Your task to perform on an android device: toggle javascript in the chrome app Image 0: 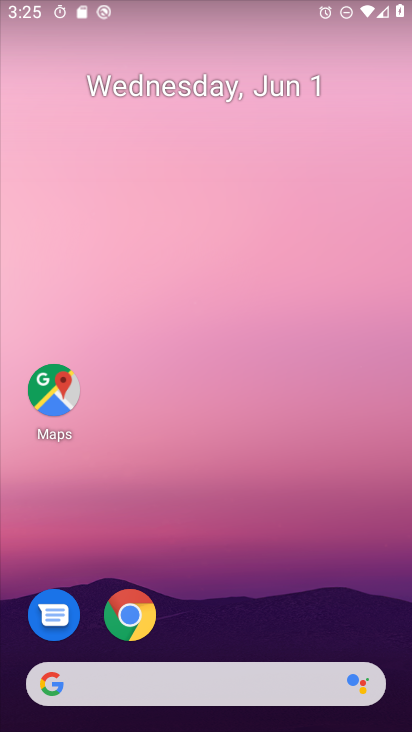
Step 0: drag from (276, 627) to (229, 51)
Your task to perform on an android device: toggle javascript in the chrome app Image 1: 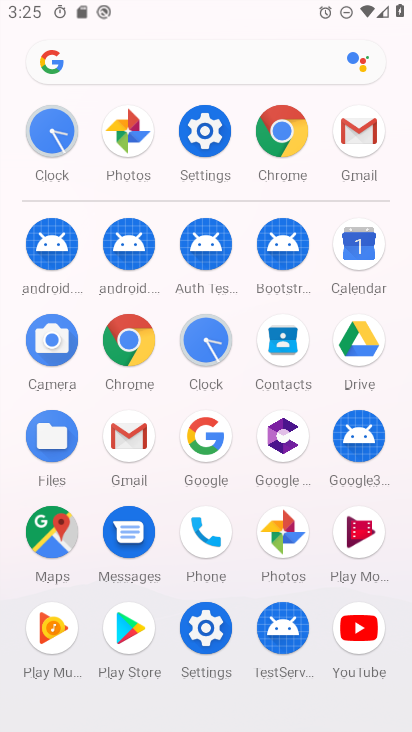
Step 1: click (291, 139)
Your task to perform on an android device: toggle javascript in the chrome app Image 2: 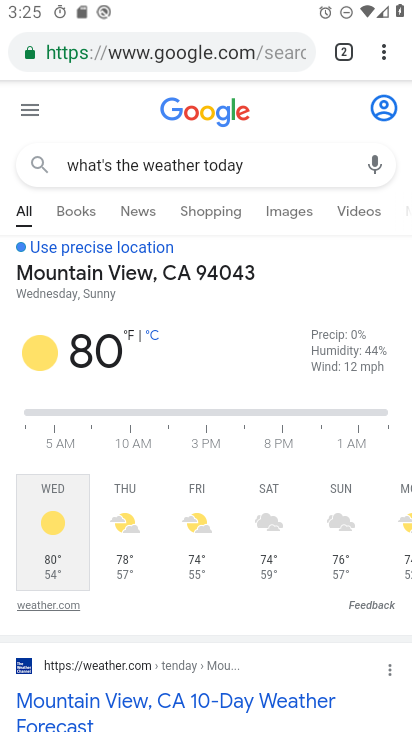
Step 2: click (388, 55)
Your task to perform on an android device: toggle javascript in the chrome app Image 3: 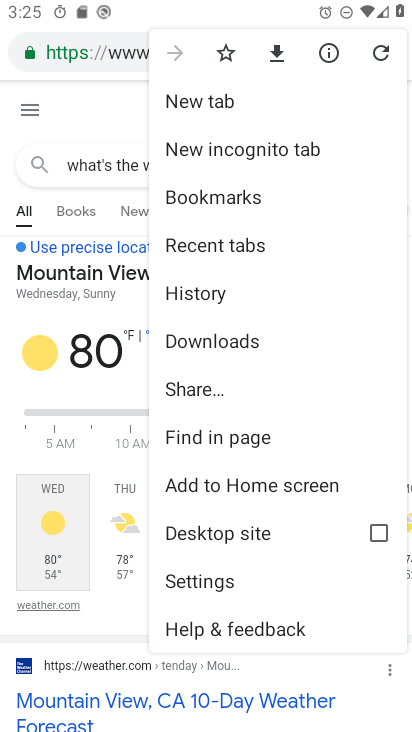
Step 3: click (220, 589)
Your task to perform on an android device: toggle javascript in the chrome app Image 4: 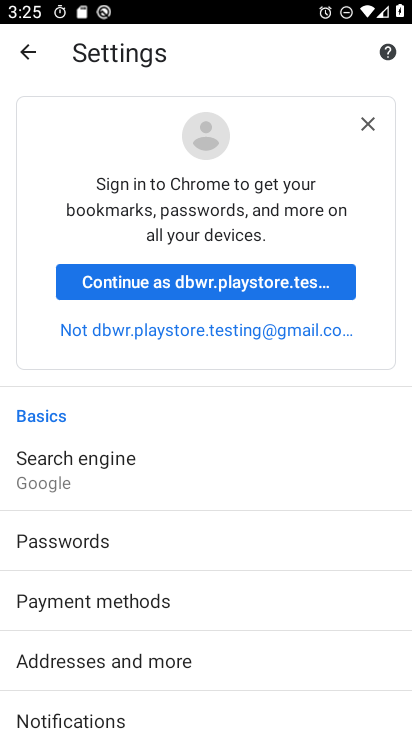
Step 4: drag from (216, 599) to (276, 100)
Your task to perform on an android device: toggle javascript in the chrome app Image 5: 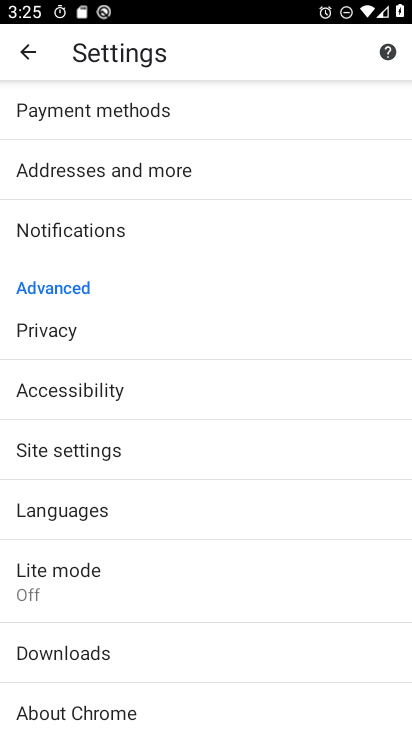
Step 5: click (195, 463)
Your task to perform on an android device: toggle javascript in the chrome app Image 6: 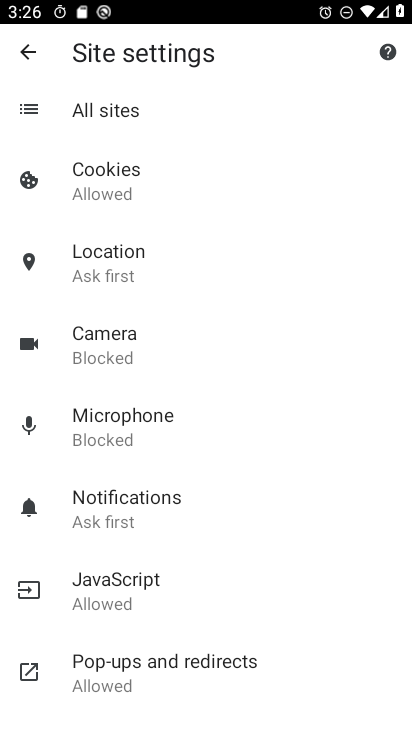
Step 6: click (144, 598)
Your task to perform on an android device: toggle javascript in the chrome app Image 7: 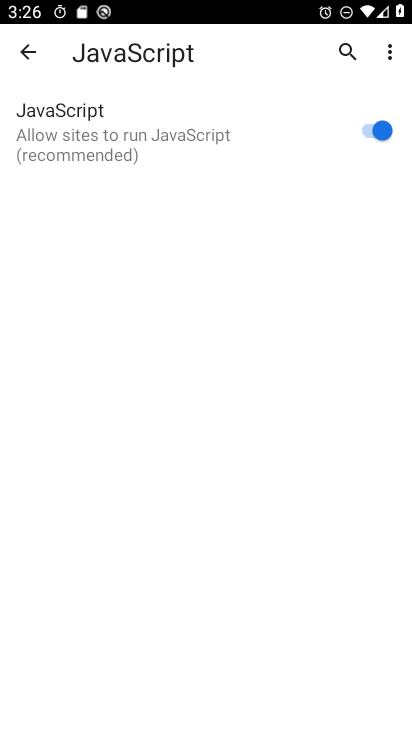
Step 7: click (372, 133)
Your task to perform on an android device: toggle javascript in the chrome app Image 8: 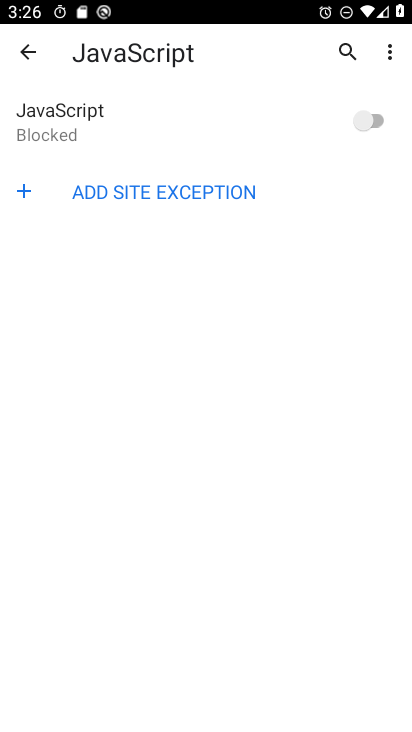
Step 8: task complete